Your task to perform on an android device: choose inbox layout in the gmail app Image 0: 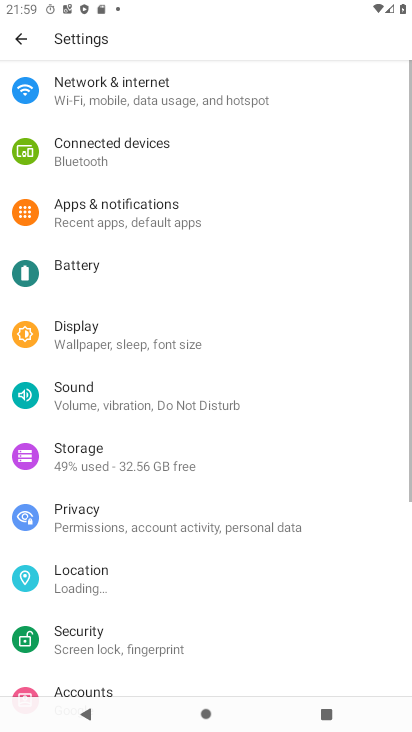
Step 0: drag from (293, 690) to (312, 142)
Your task to perform on an android device: choose inbox layout in the gmail app Image 1: 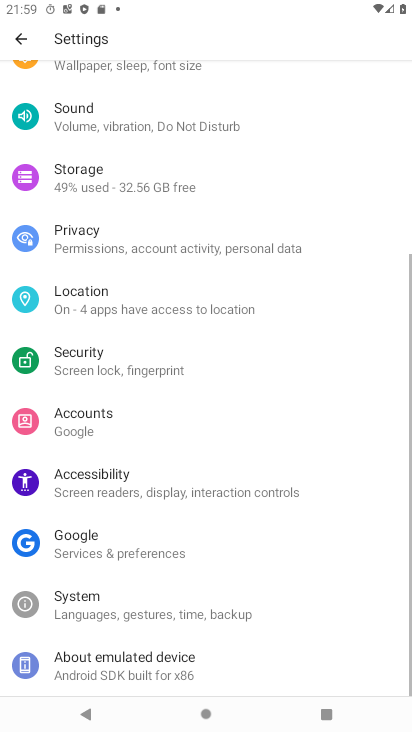
Step 1: press home button
Your task to perform on an android device: choose inbox layout in the gmail app Image 2: 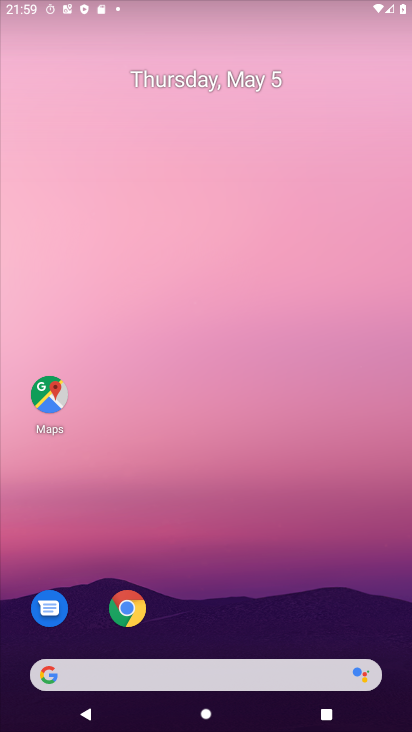
Step 2: drag from (254, 680) to (310, 81)
Your task to perform on an android device: choose inbox layout in the gmail app Image 3: 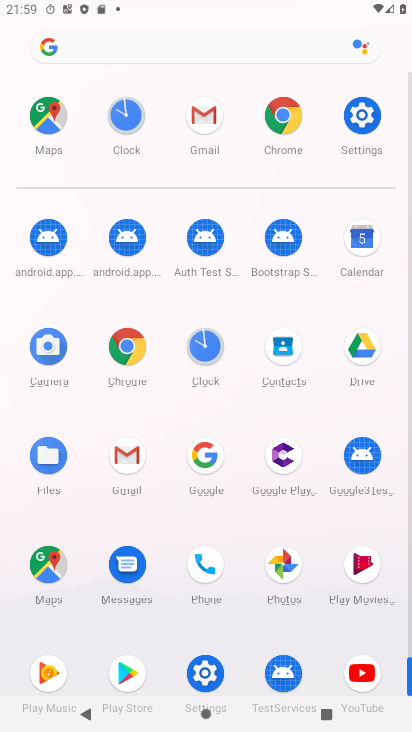
Step 3: click (126, 448)
Your task to perform on an android device: choose inbox layout in the gmail app Image 4: 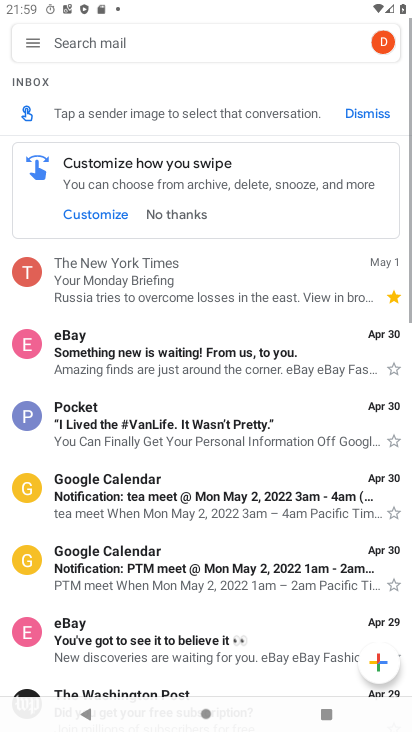
Step 4: click (40, 46)
Your task to perform on an android device: choose inbox layout in the gmail app Image 5: 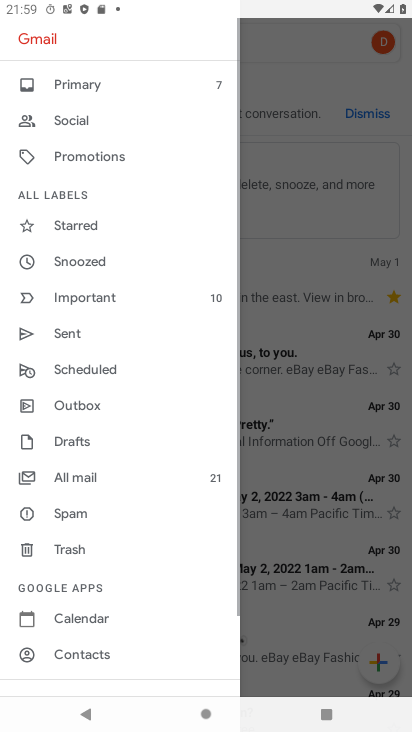
Step 5: drag from (87, 654) to (94, 134)
Your task to perform on an android device: choose inbox layout in the gmail app Image 6: 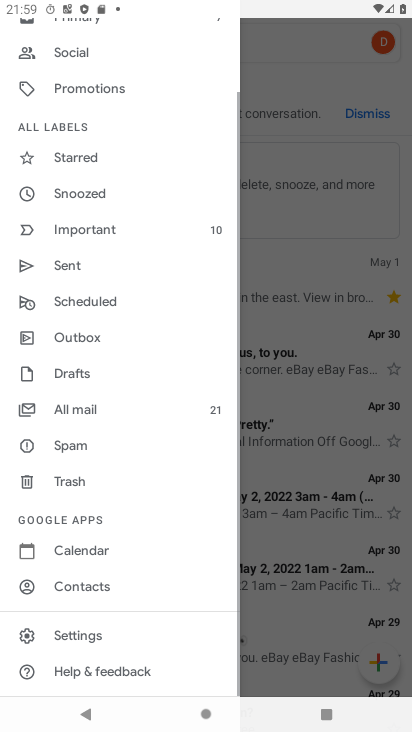
Step 6: click (110, 637)
Your task to perform on an android device: choose inbox layout in the gmail app Image 7: 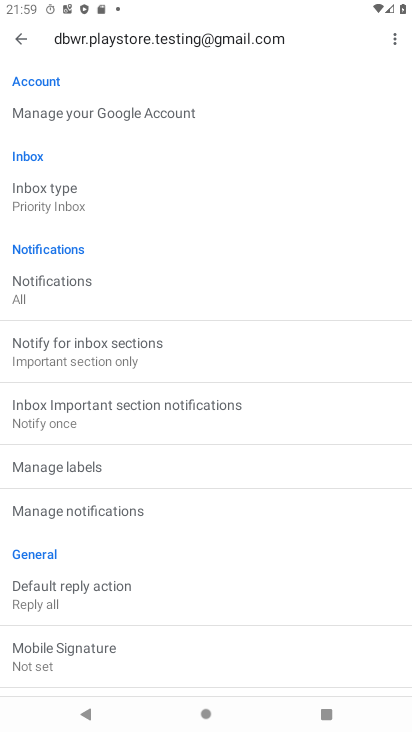
Step 7: click (78, 202)
Your task to perform on an android device: choose inbox layout in the gmail app Image 8: 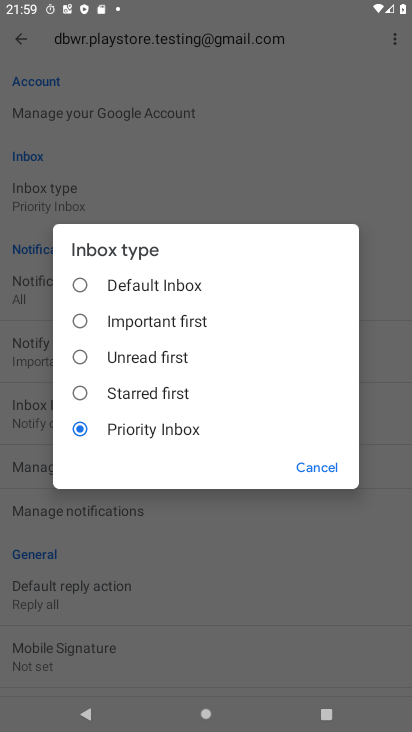
Step 8: click (77, 316)
Your task to perform on an android device: choose inbox layout in the gmail app Image 9: 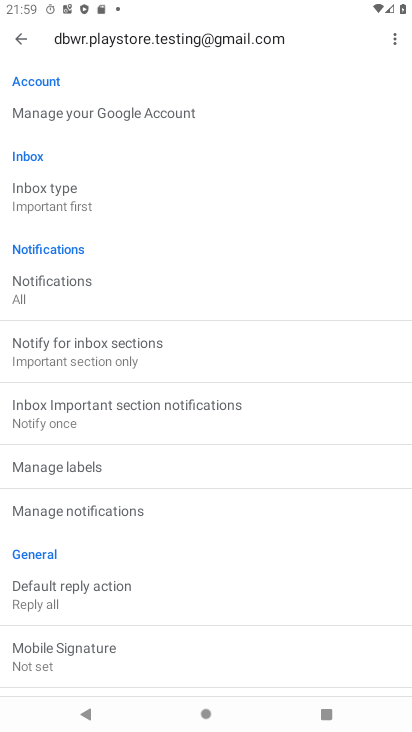
Step 9: task complete